Your task to perform on an android device: Open Youtube and go to "Your channel" Image 0: 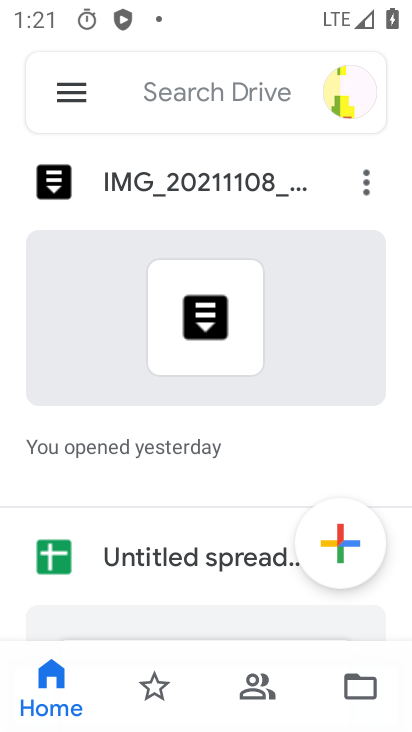
Step 0: press home button
Your task to perform on an android device: Open Youtube and go to "Your channel" Image 1: 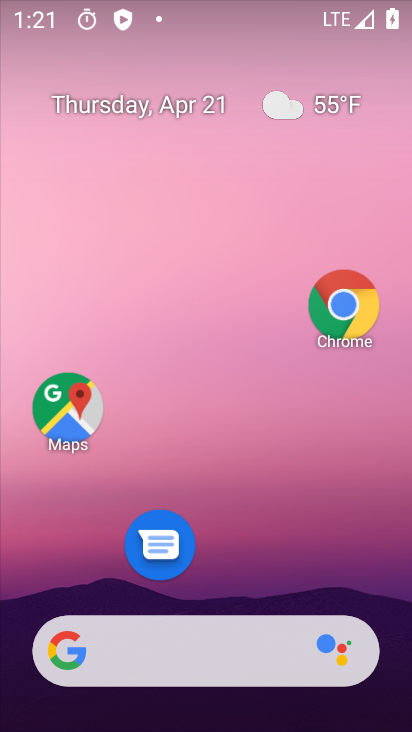
Step 1: drag from (221, 645) to (313, 178)
Your task to perform on an android device: Open Youtube and go to "Your channel" Image 2: 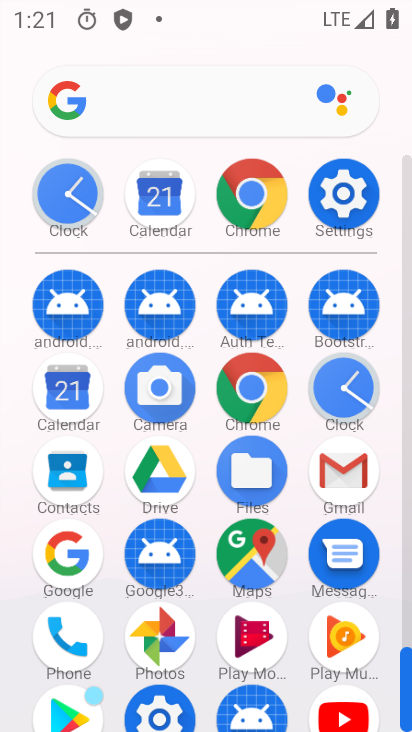
Step 2: drag from (205, 570) to (298, 191)
Your task to perform on an android device: Open Youtube and go to "Your channel" Image 3: 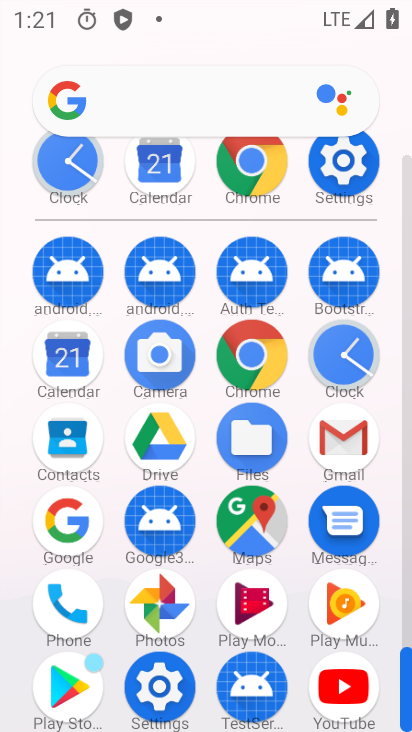
Step 3: click (342, 694)
Your task to perform on an android device: Open Youtube and go to "Your channel" Image 4: 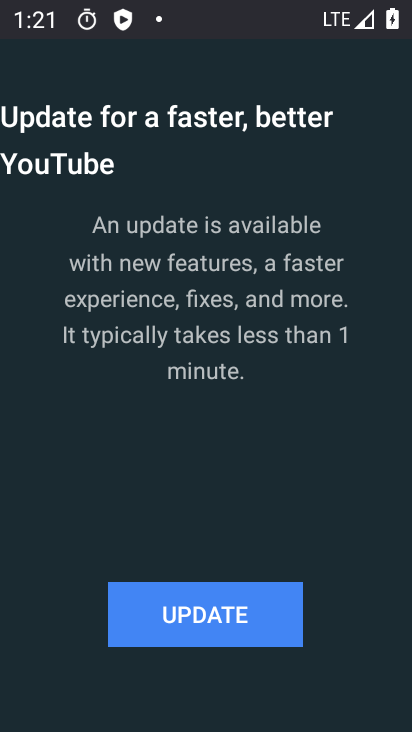
Step 4: click (243, 602)
Your task to perform on an android device: Open Youtube and go to "Your channel" Image 5: 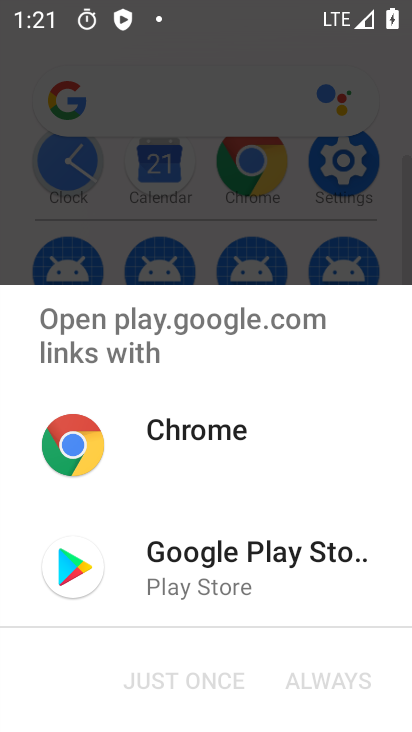
Step 5: click (203, 590)
Your task to perform on an android device: Open Youtube and go to "Your channel" Image 6: 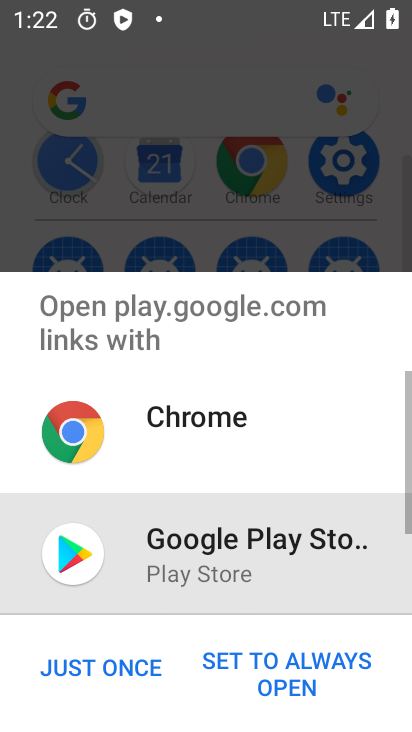
Step 6: click (127, 667)
Your task to perform on an android device: Open Youtube and go to "Your channel" Image 7: 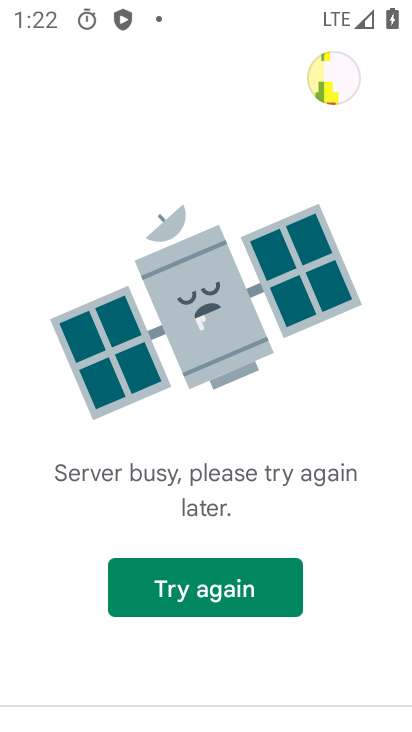
Step 7: task complete